Your task to perform on an android device: Play the last video I watched on Youtube Image 0: 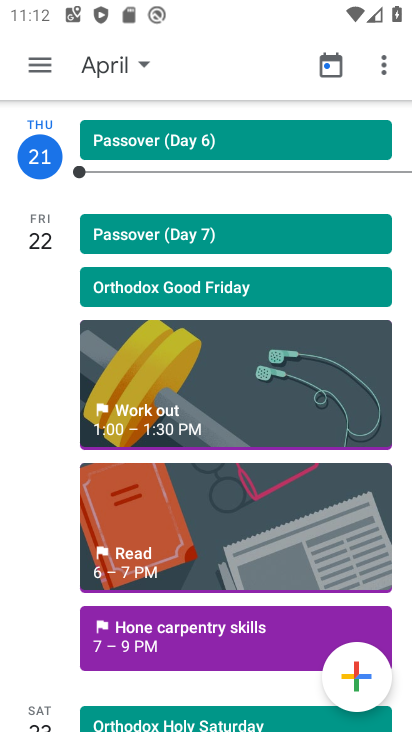
Step 0: press back button
Your task to perform on an android device: Play the last video I watched on Youtube Image 1: 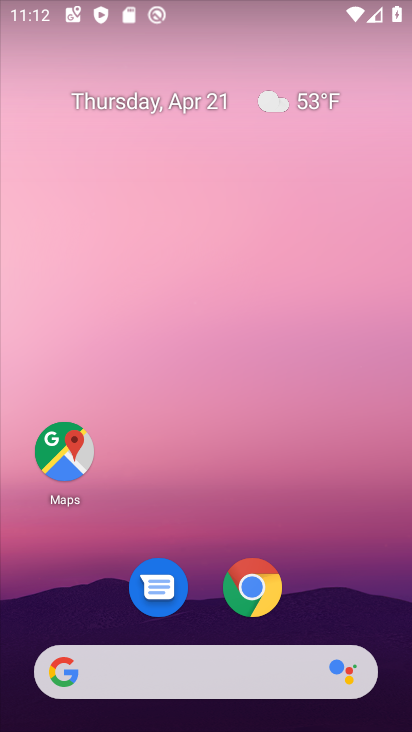
Step 1: drag from (215, 586) to (292, 50)
Your task to perform on an android device: Play the last video I watched on Youtube Image 2: 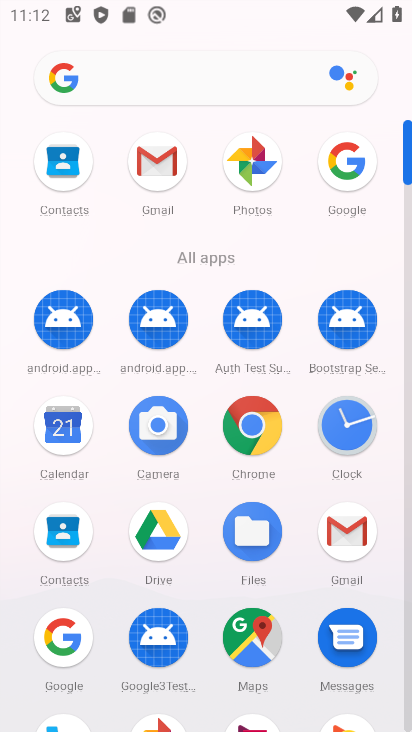
Step 2: drag from (192, 648) to (297, 86)
Your task to perform on an android device: Play the last video I watched on Youtube Image 3: 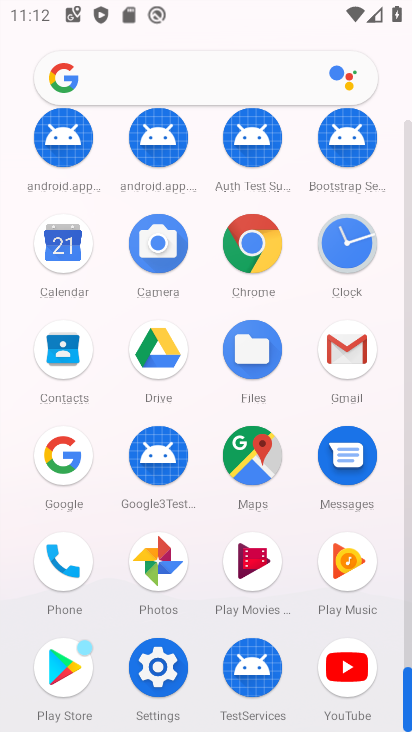
Step 3: click (333, 647)
Your task to perform on an android device: Play the last video I watched on Youtube Image 4: 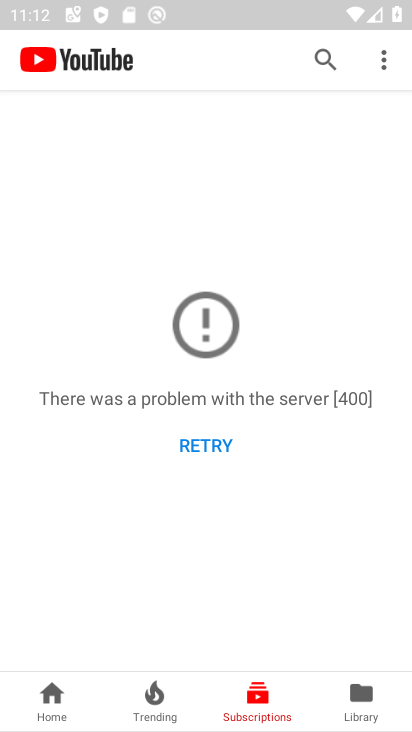
Step 4: click (369, 693)
Your task to perform on an android device: Play the last video I watched on Youtube Image 5: 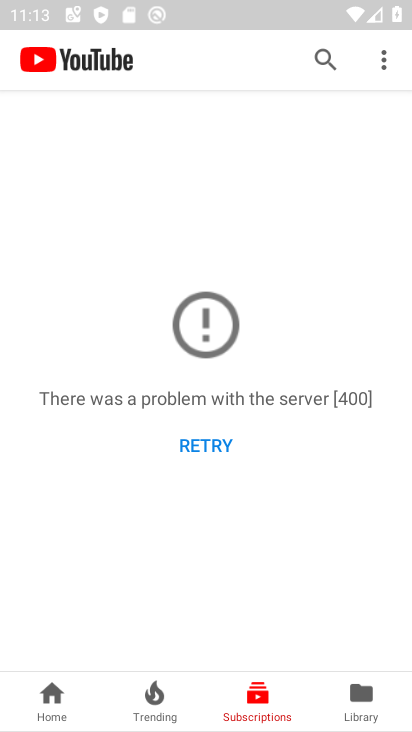
Step 5: task complete